Your task to perform on an android device: allow cookies in the chrome app Image 0: 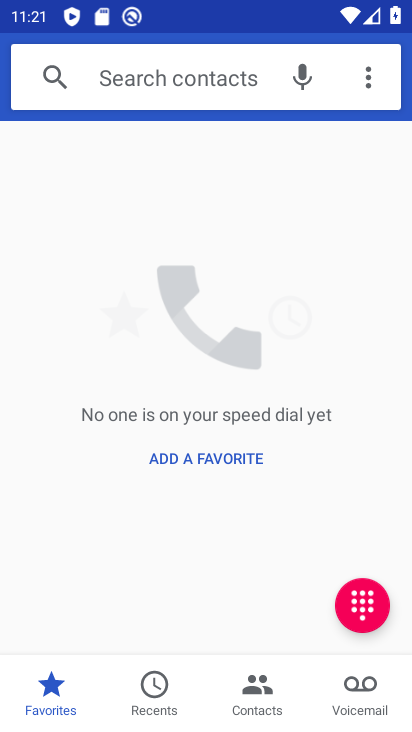
Step 0: press home button
Your task to perform on an android device: allow cookies in the chrome app Image 1: 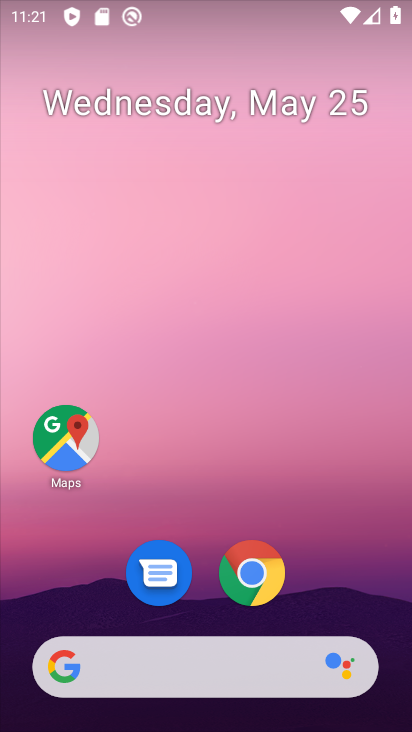
Step 1: drag from (215, 655) to (220, 129)
Your task to perform on an android device: allow cookies in the chrome app Image 2: 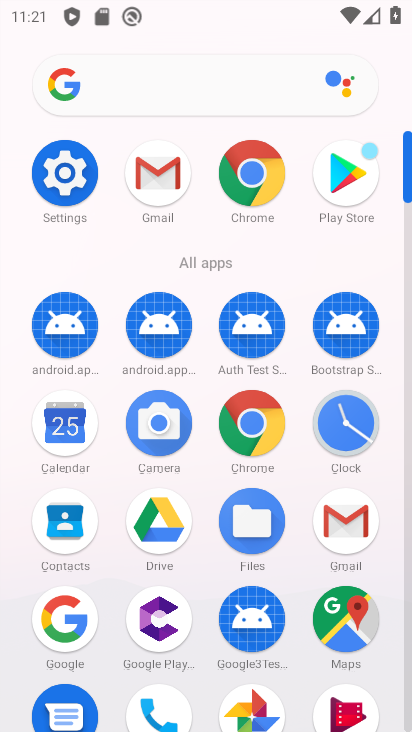
Step 2: click (252, 170)
Your task to perform on an android device: allow cookies in the chrome app Image 3: 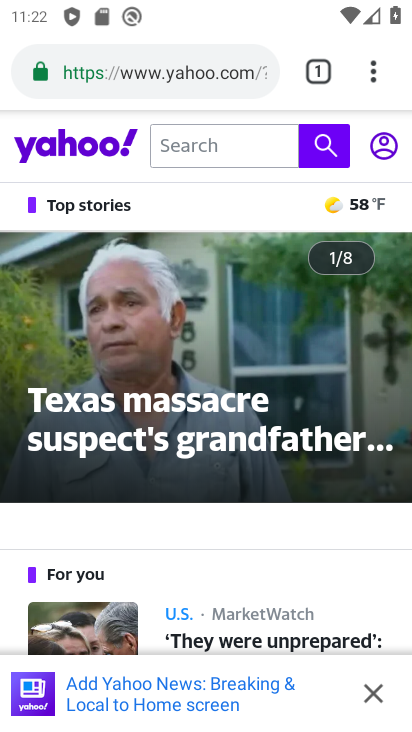
Step 3: click (366, 64)
Your task to perform on an android device: allow cookies in the chrome app Image 4: 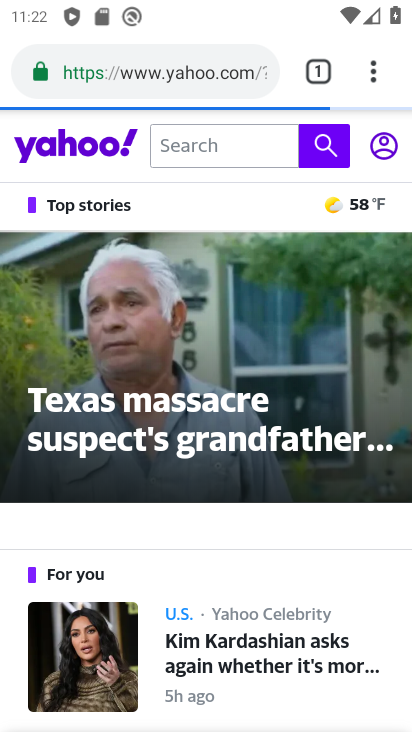
Step 4: drag from (366, 64) to (141, 576)
Your task to perform on an android device: allow cookies in the chrome app Image 5: 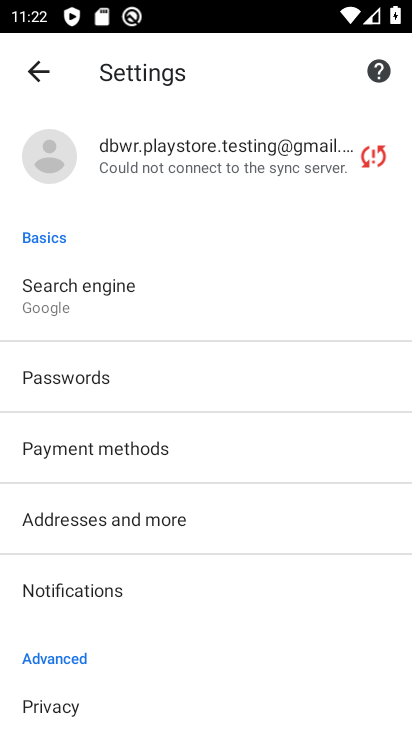
Step 5: drag from (216, 638) to (306, 78)
Your task to perform on an android device: allow cookies in the chrome app Image 6: 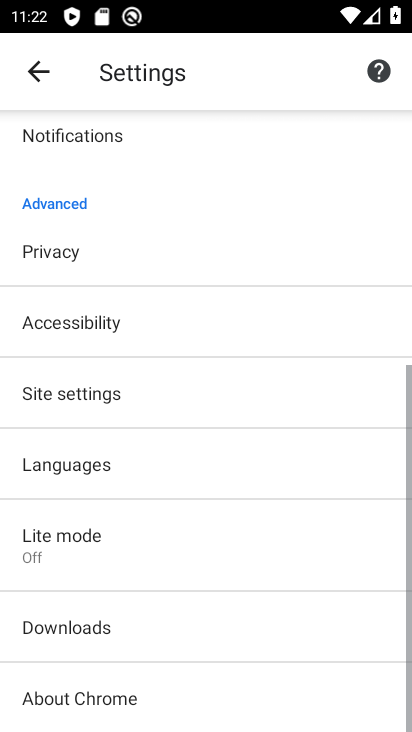
Step 6: click (47, 406)
Your task to perform on an android device: allow cookies in the chrome app Image 7: 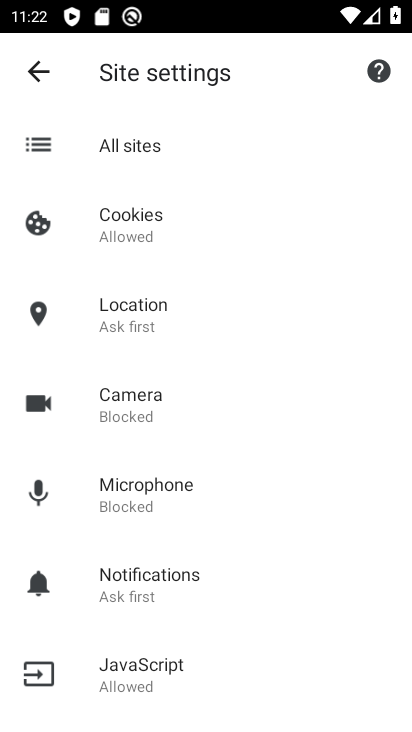
Step 7: click (143, 226)
Your task to perform on an android device: allow cookies in the chrome app Image 8: 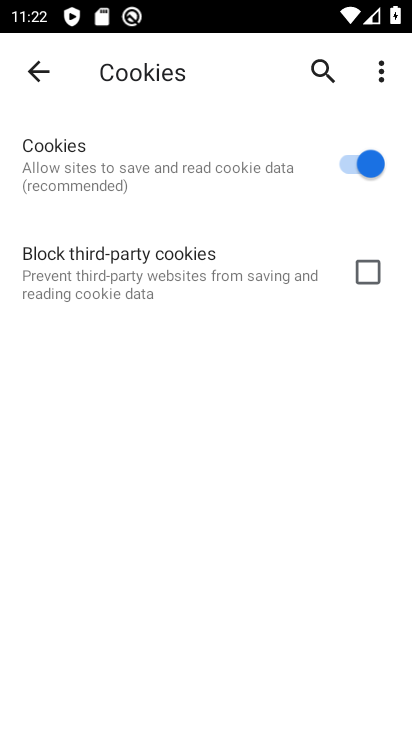
Step 8: task complete